Your task to perform on an android device: What's the weather today? Image 0: 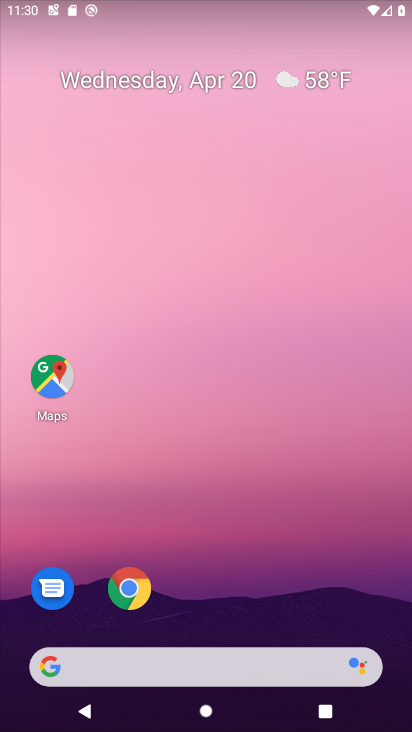
Step 0: click (330, 83)
Your task to perform on an android device: What's the weather today? Image 1: 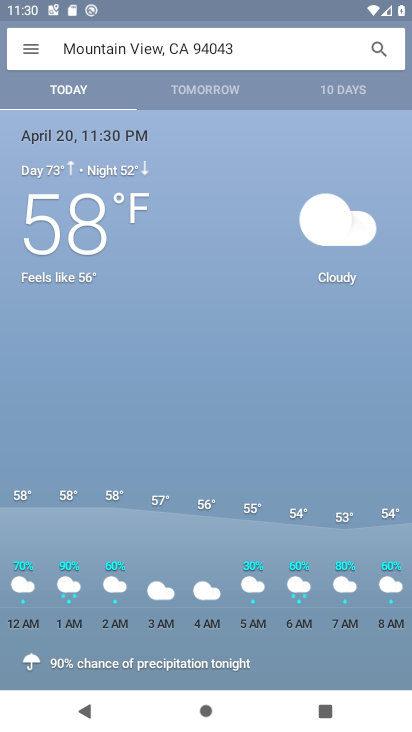
Step 1: task complete